Your task to perform on an android device: Go to notification settings Image 0: 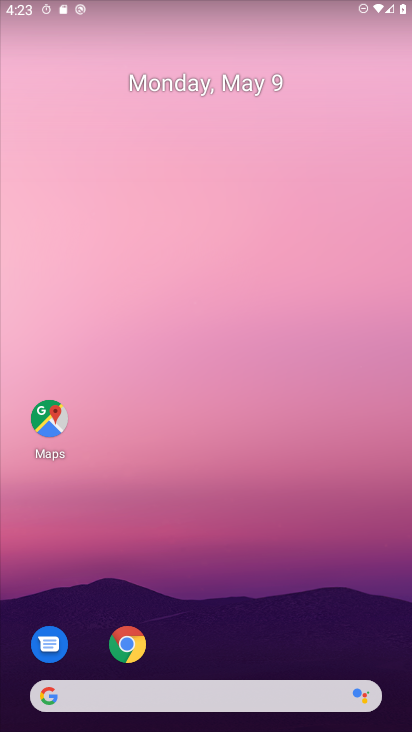
Step 0: drag from (185, 650) to (176, 146)
Your task to perform on an android device: Go to notification settings Image 1: 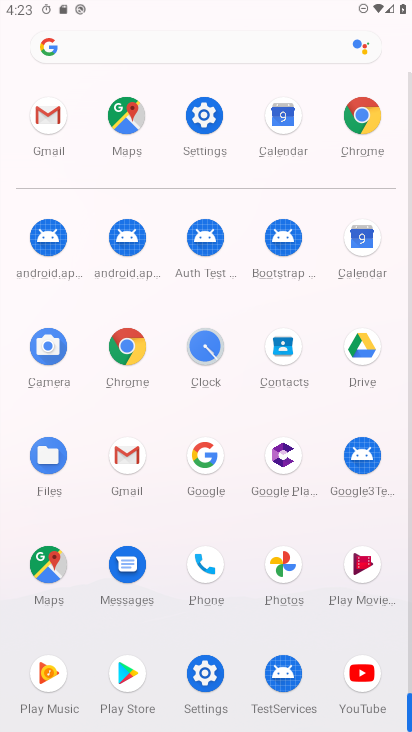
Step 1: click (206, 149)
Your task to perform on an android device: Go to notification settings Image 2: 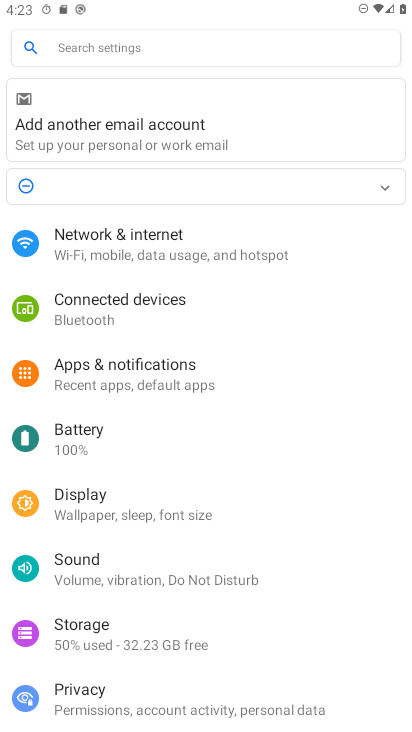
Step 2: click (147, 374)
Your task to perform on an android device: Go to notification settings Image 3: 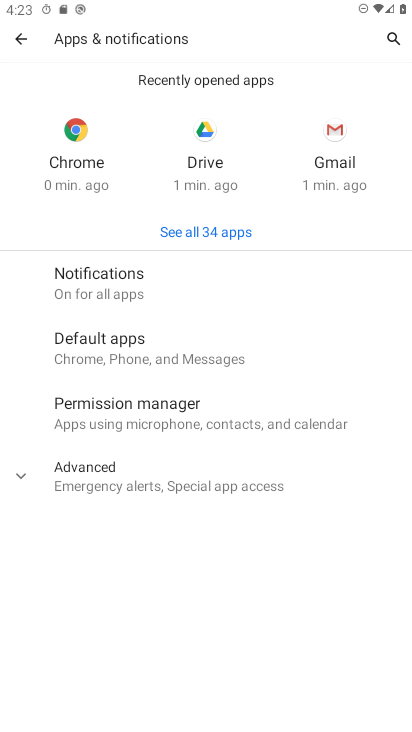
Step 3: click (115, 296)
Your task to perform on an android device: Go to notification settings Image 4: 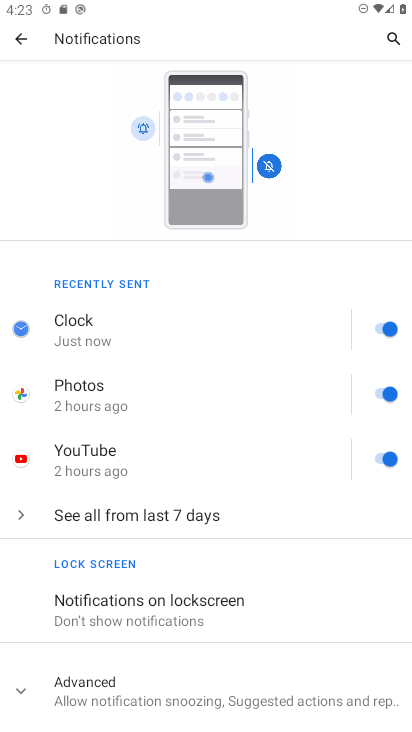
Step 4: task complete